Your task to perform on an android device: Go to internet settings Image 0: 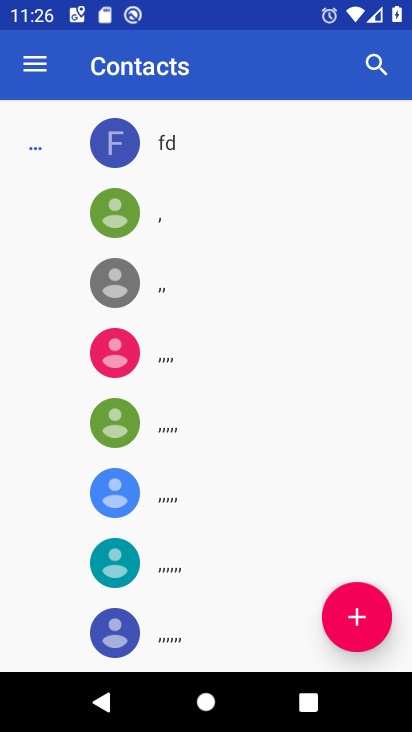
Step 0: press home button
Your task to perform on an android device: Go to internet settings Image 1: 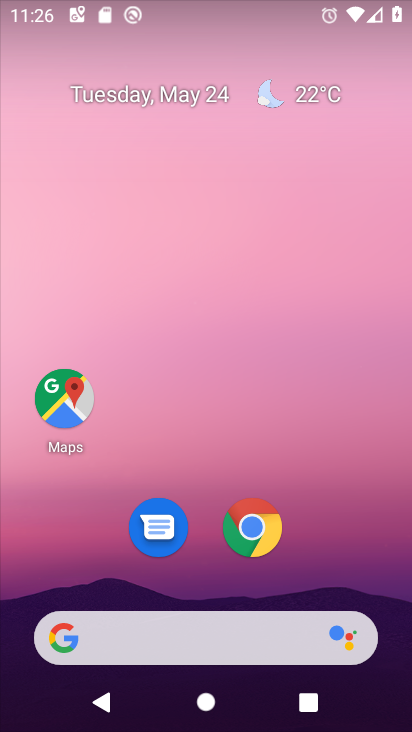
Step 1: drag from (175, 646) to (224, 231)
Your task to perform on an android device: Go to internet settings Image 2: 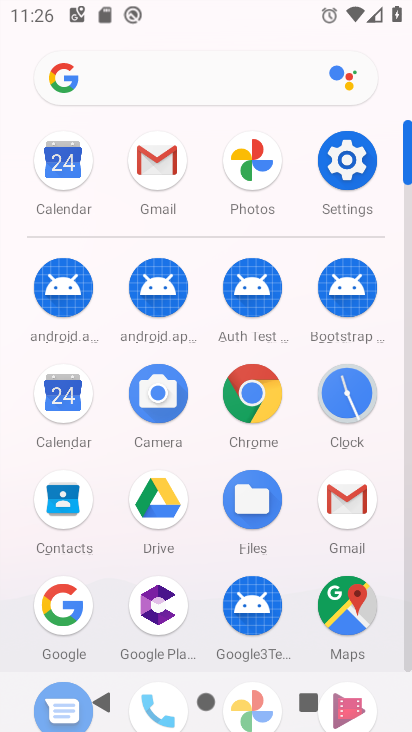
Step 2: click (344, 178)
Your task to perform on an android device: Go to internet settings Image 3: 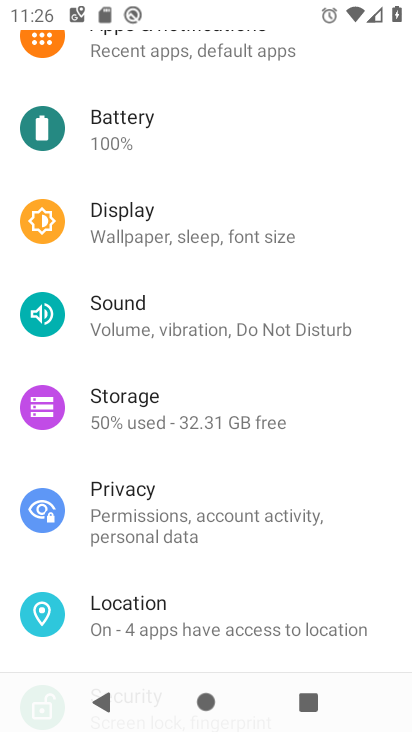
Step 3: drag from (313, 132) to (239, 597)
Your task to perform on an android device: Go to internet settings Image 4: 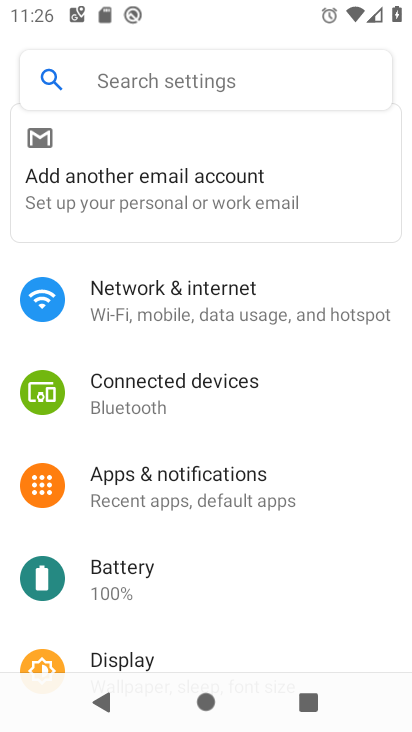
Step 4: click (208, 312)
Your task to perform on an android device: Go to internet settings Image 5: 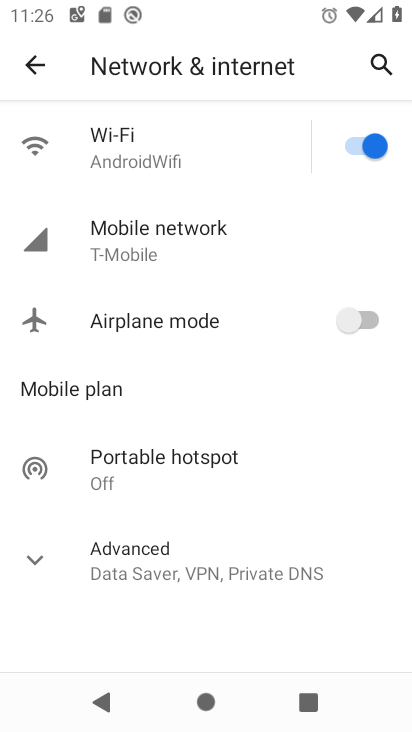
Step 5: task complete